Your task to perform on an android device: show emergency info Image 0: 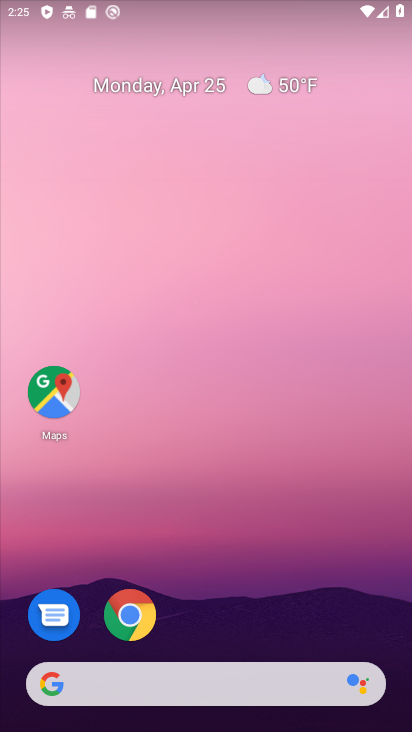
Step 0: drag from (214, 717) to (195, 190)
Your task to perform on an android device: show emergency info Image 1: 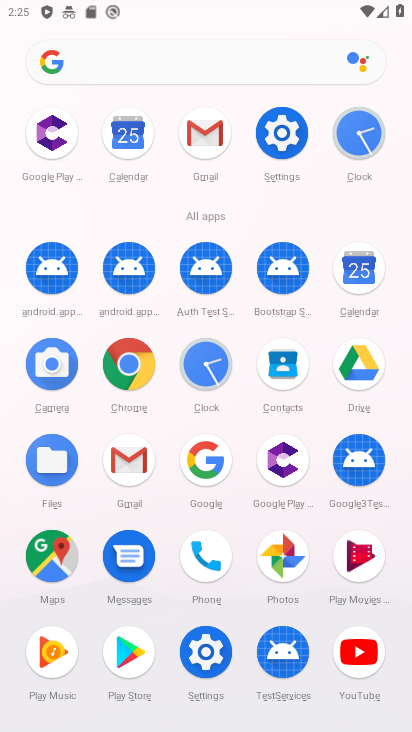
Step 1: click (284, 133)
Your task to perform on an android device: show emergency info Image 2: 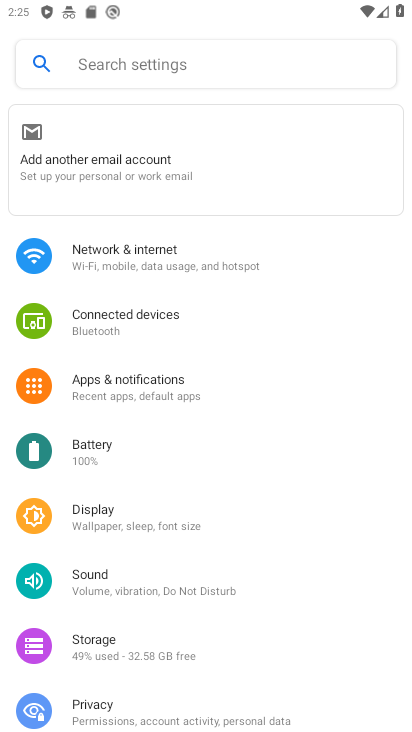
Step 2: drag from (176, 684) to (149, 336)
Your task to perform on an android device: show emergency info Image 3: 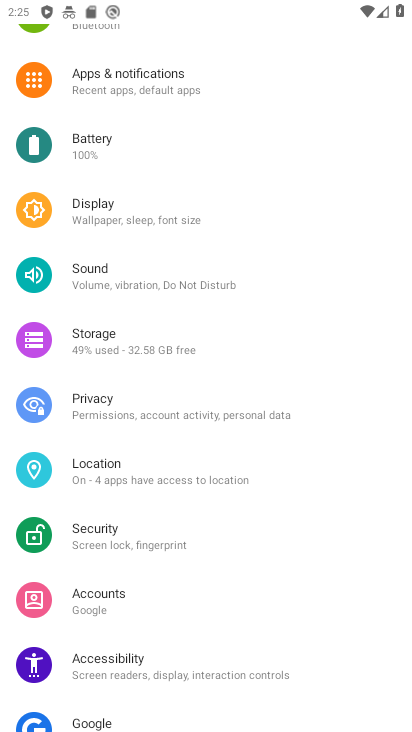
Step 3: drag from (153, 695) to (146, 332)
Your task to perform on an android device: show emergency info Image 4: 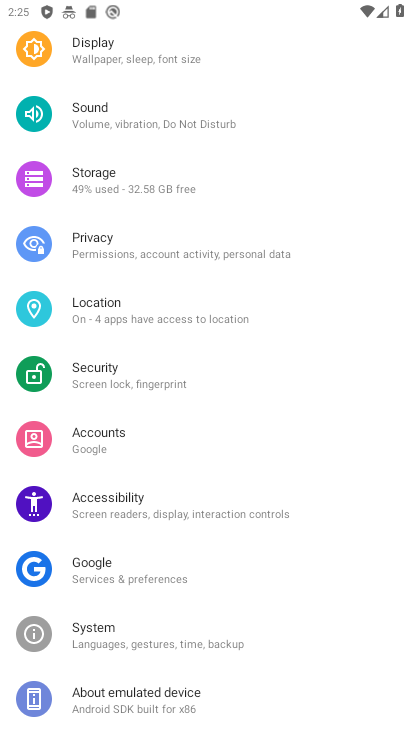
Step 4: click (162, 693)
Your task to perform on an android device: show emergency info Image 5: 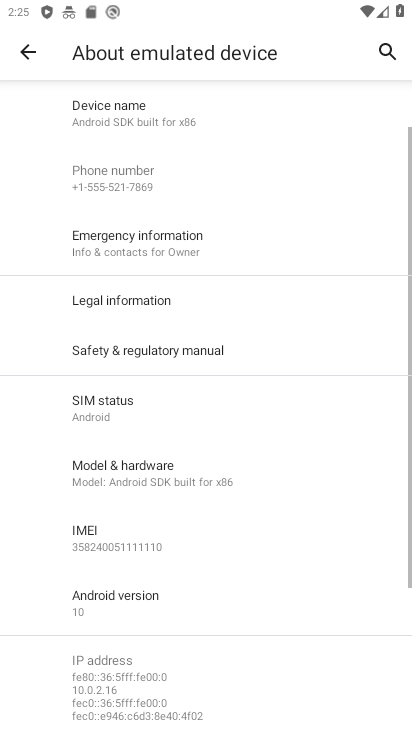
Step 5: click (119, 240)
Your task to perform on an android device: show emergency info Image 6: 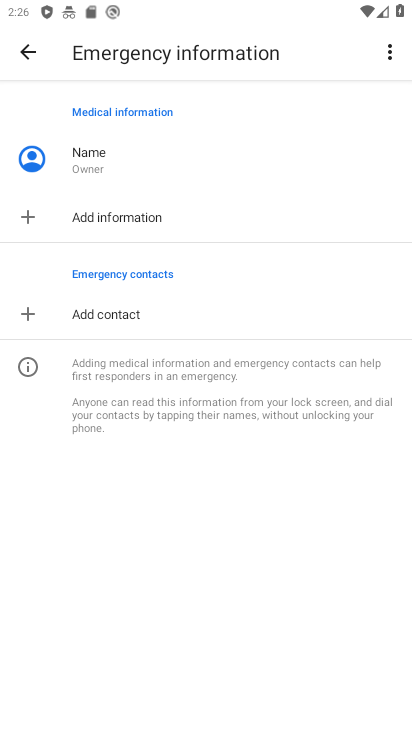
Step 6: task complete